Your task to perform on an android device: Open Chrome and go to the settings page Image 0: 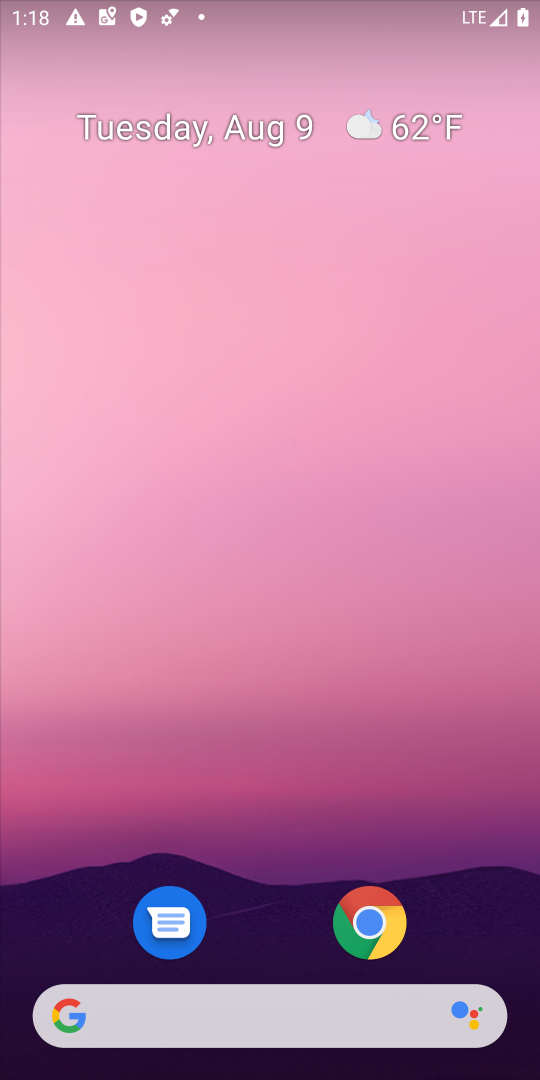
Step 0: click (381, 907)
Your task to perform on an android device: Open Chrome and go to the settings page Image 1: 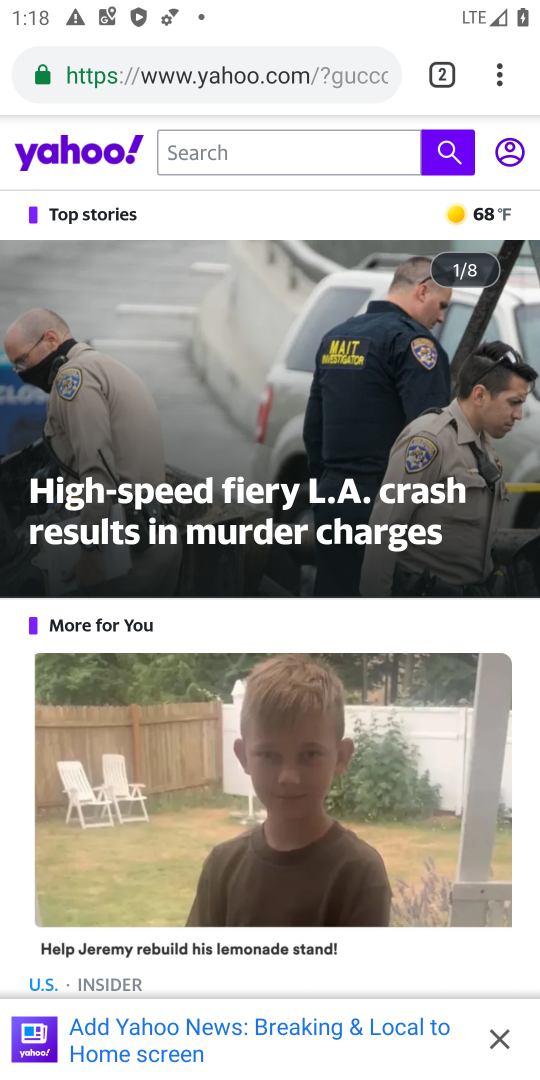
Step 1: click (498, 67)
Your task to perform on an android device: Open Chrome and go to the settings page Image 2: 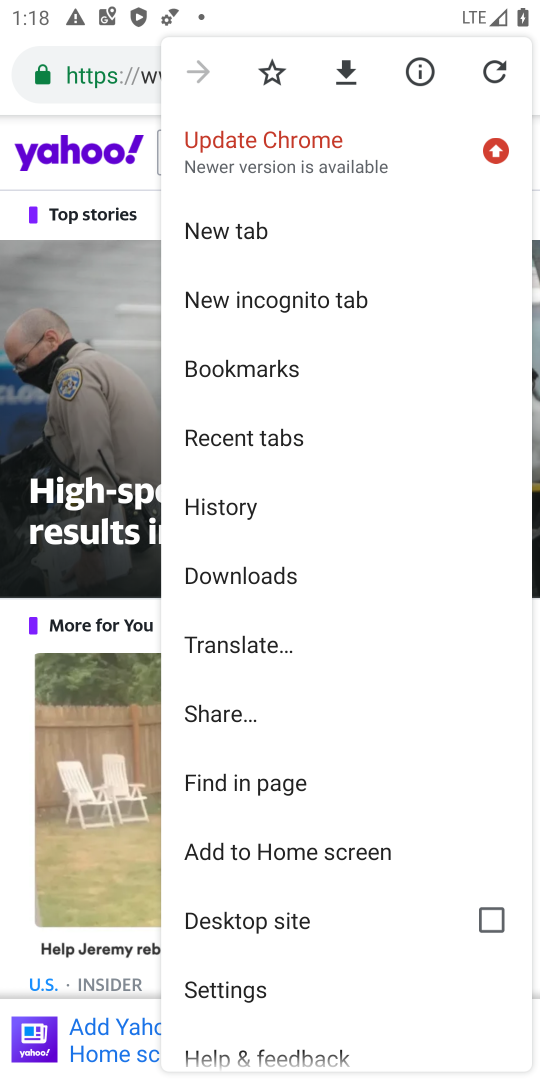
Step 2: click (240, 971)
Your task to perform on an android device: Open Chrome and go to the settings page Image 3: 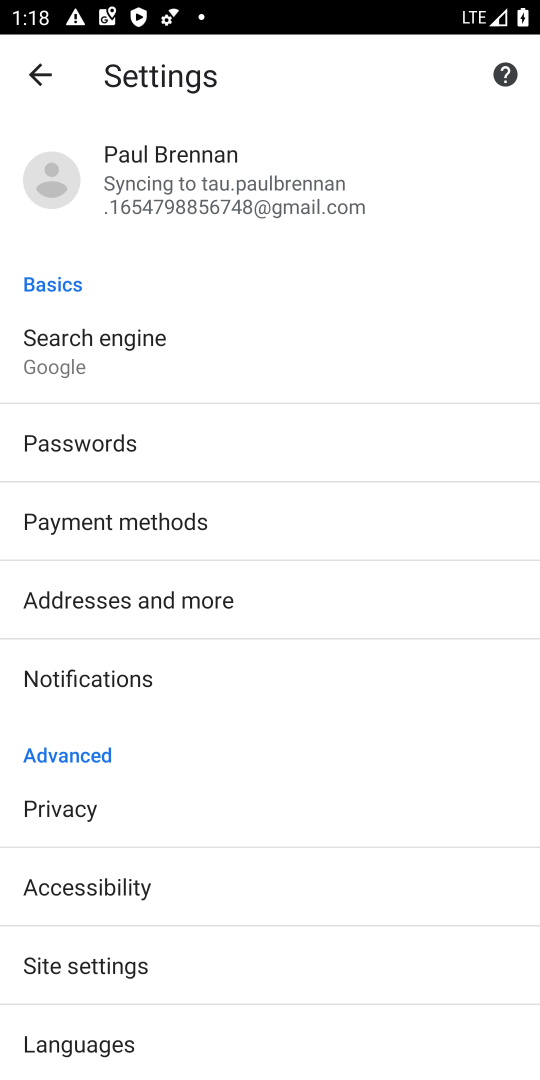
Step 3: task complete